Your task to perform on an android device: turn on showing notifications on the lock screen Image 0: 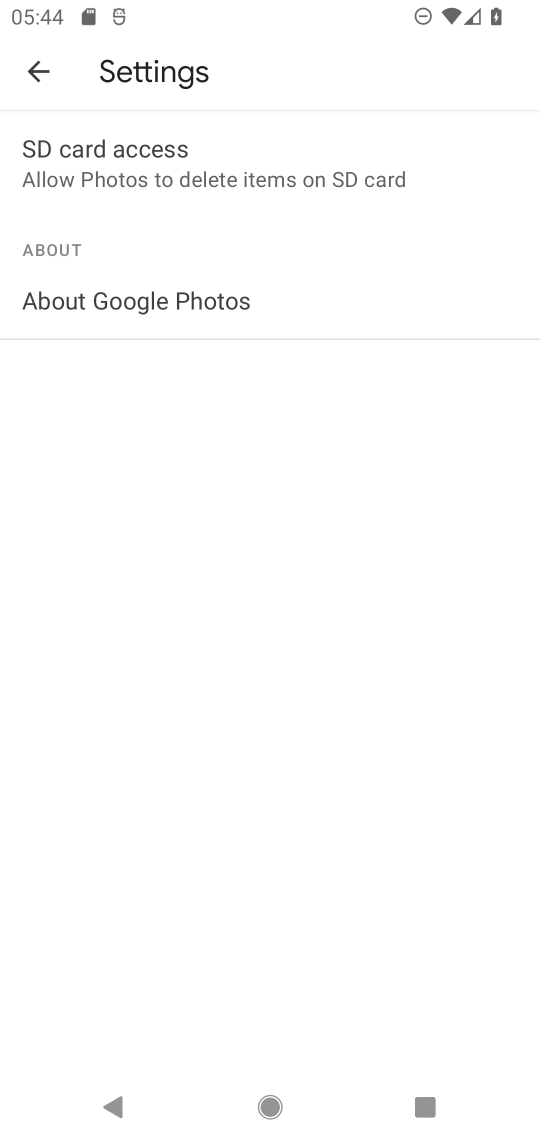
Step 0: press home button
Your task to perform on an android device: turn on showing notifications on the lock screen Image 1: 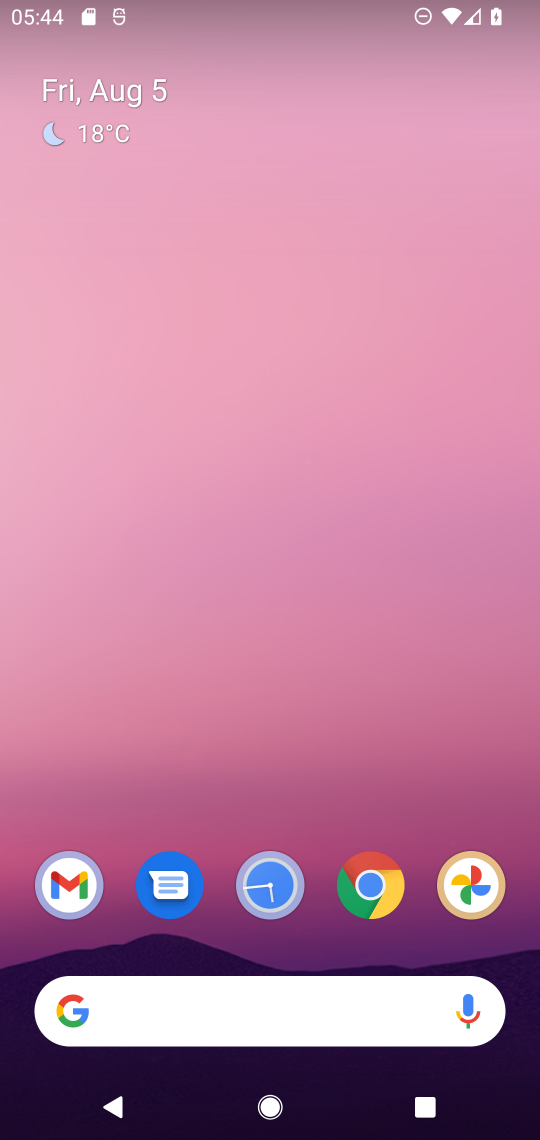
Step 1: drag from (347, 923) to (355, 68)
Your task to perform on an android device: turn on showing notifications on the lock screen Image 2: 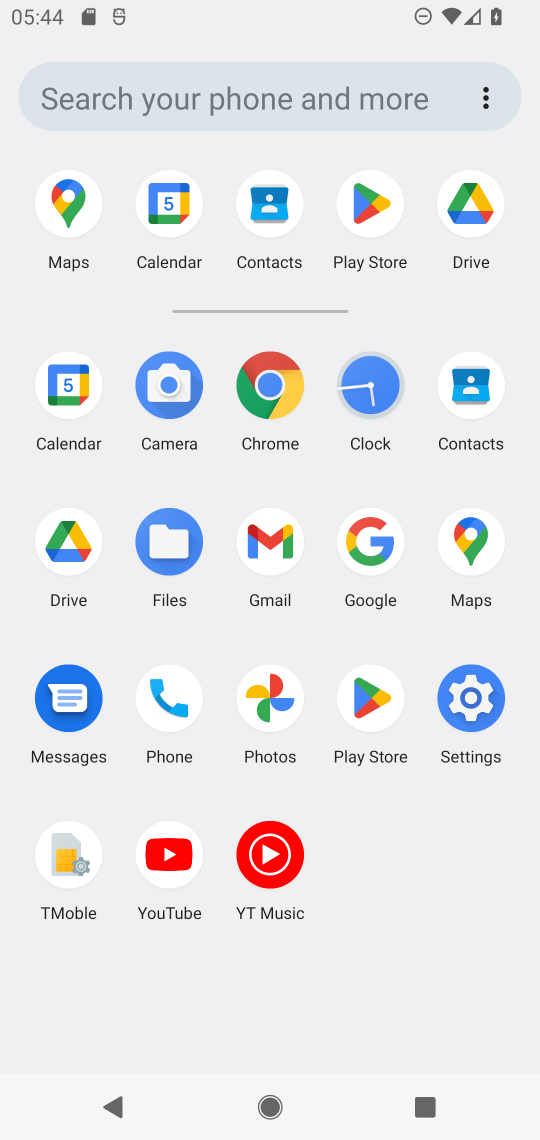
Step 2: click (467, 697)
Your task to perform on an android device: turn on showing notifications on the lock screen Image 3: 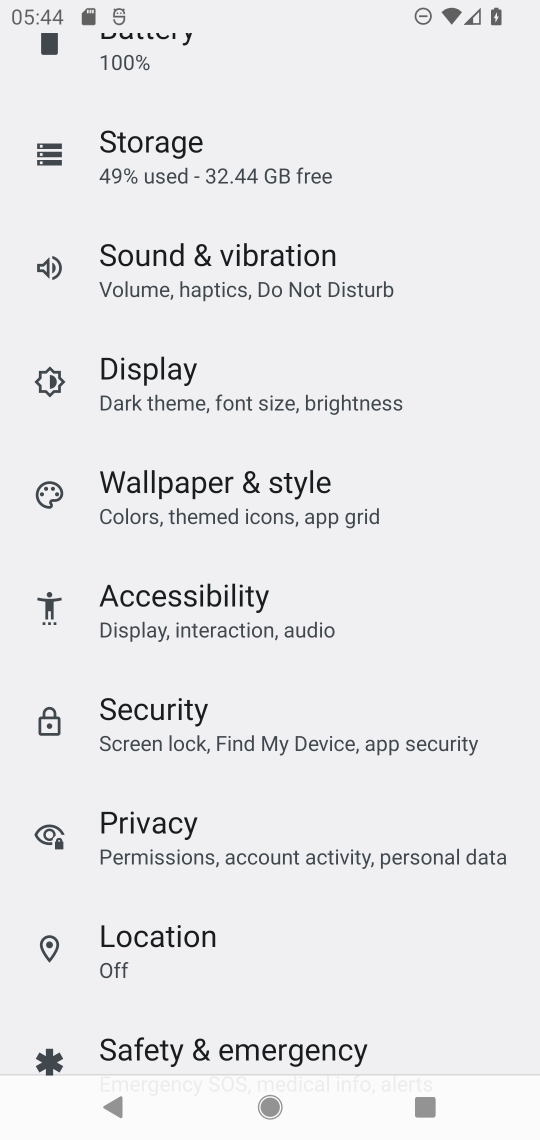
Step 3: drag from (252, 195) to (269, 989)
Your task to perform on an android device: turn on showing notifications on the lock screen Image 4: 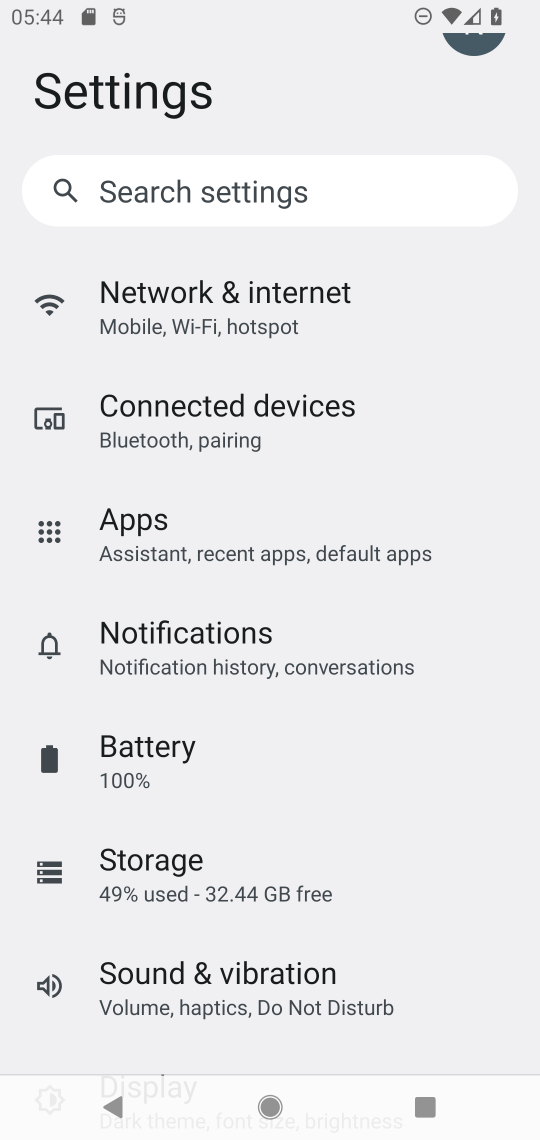
Step 4: click (199, 638)
Your task to perform on an android device: turn on showing notifications on the lock screen Image 5: 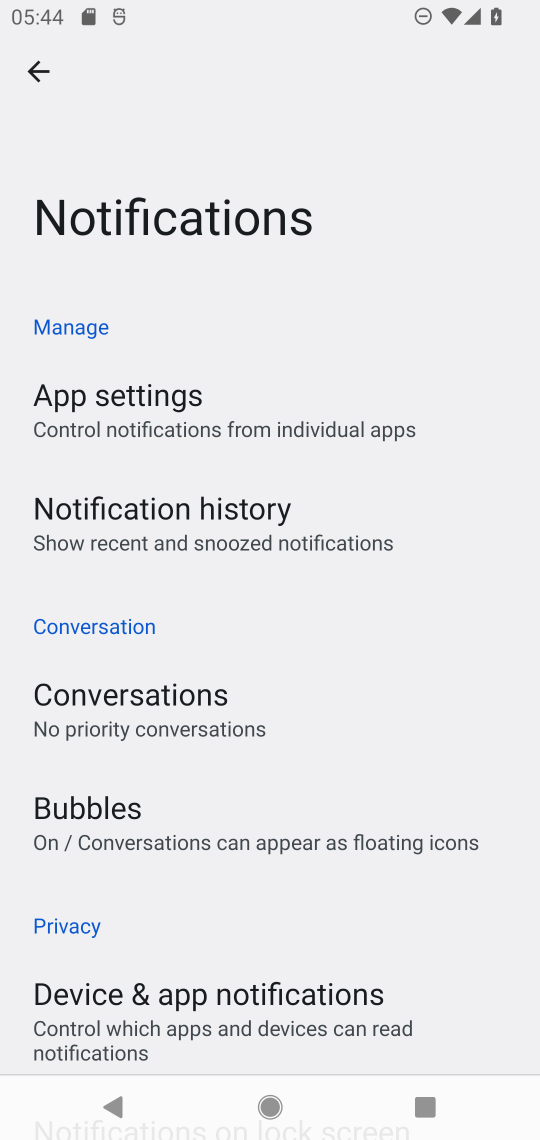
Step 5: drag from (213, 989) to (201, 575)
Your task to perform on an android device: turn on showing notifications on the lock screen Image 6: 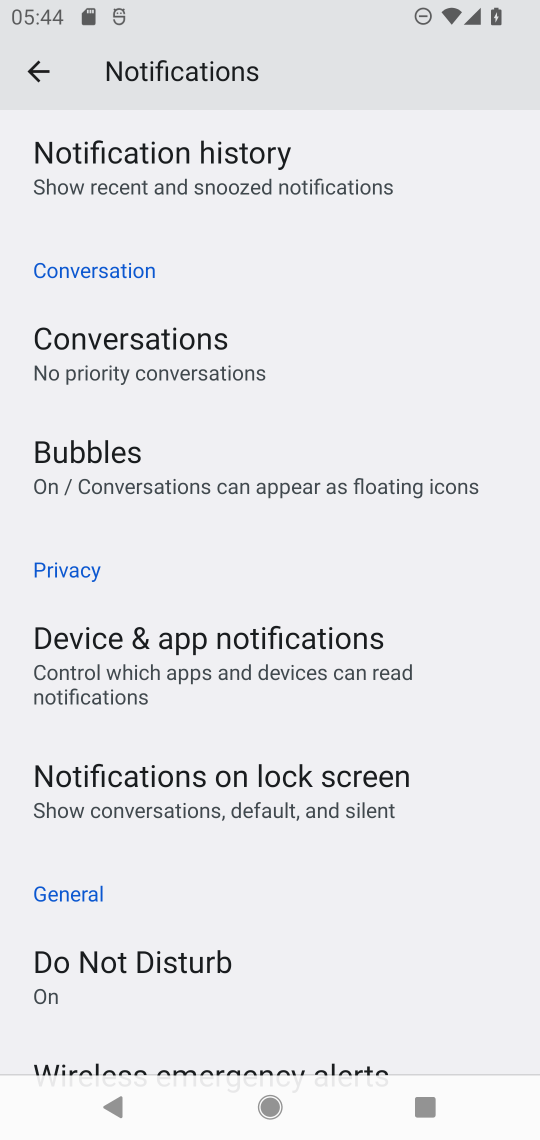
Step 6: click (218, 788)
Your task to perform on an android device: turn on showing notifications on the lock screen Image 7: 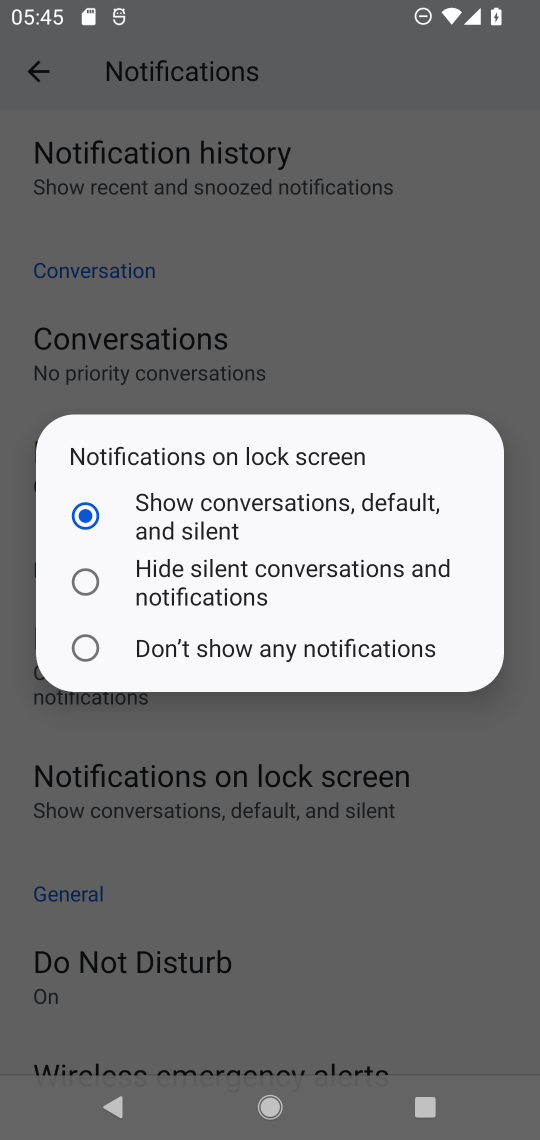
Step 7: click (85, 640)
Your task to perform on an android device: turn on showing notifications on the lock screen Image 8: 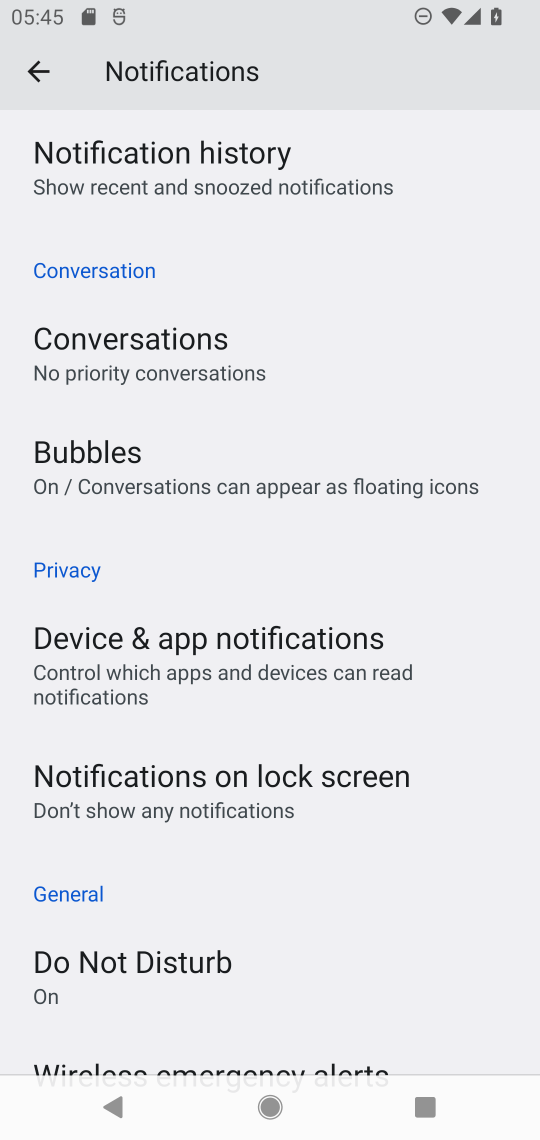
Step 8: task complete